Your task to perform on an android device: add a contact in the contacts app Image 0: 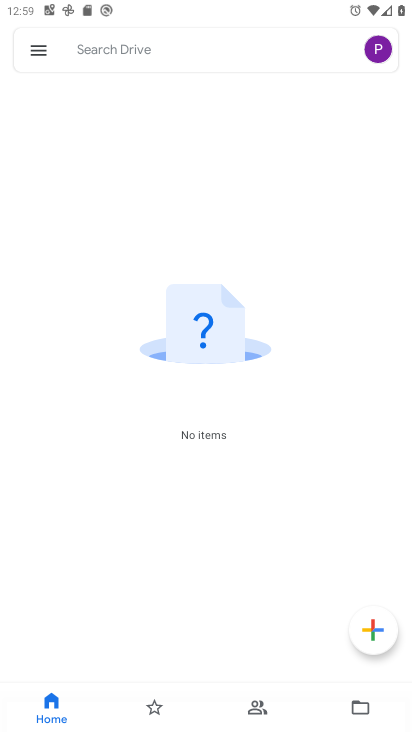
Step 0: drag from (156, 678) to (272, 133)
Your task to perform on an android device: add a contact in the contacts app Image 1: 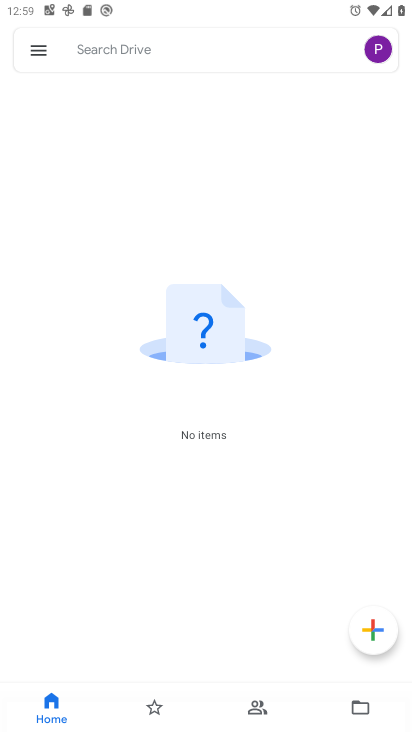
Step 1: press home button
Your task to perform on an android device: add a contact in the contacts app Image 2: 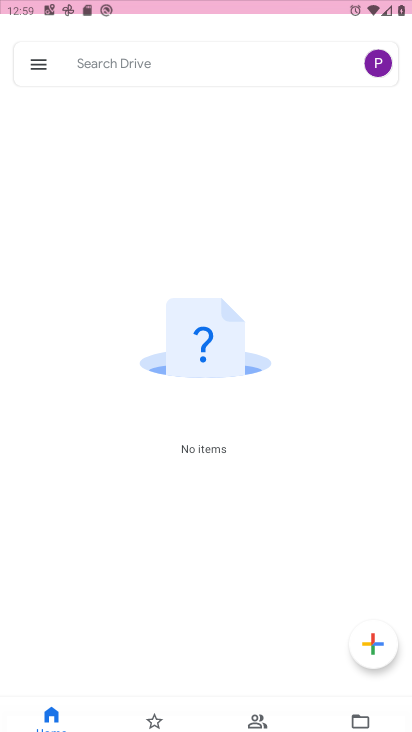
Step 2: drag from (199, 350) to (247, 169)
Your task to perform on an android device: add a contact in the contacts app Image 3: 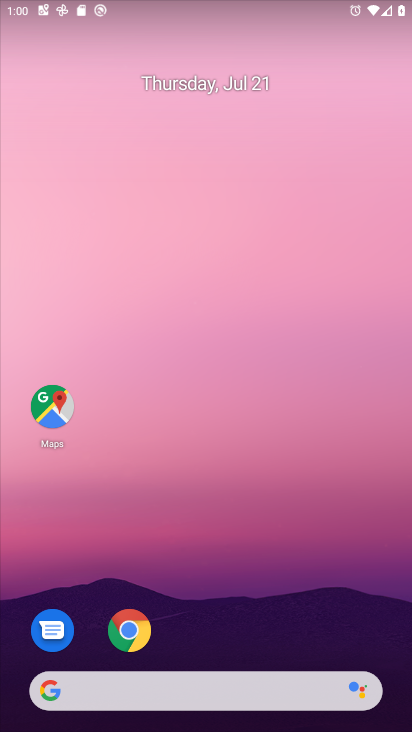
Step 3: drag from (171, 639) to (237, 67)
Your task to perform on an android device: add a contact in the contacts app Image 4: 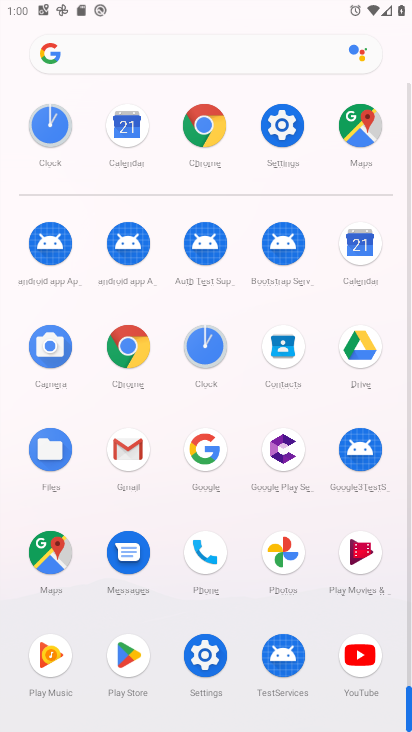
Step 4: click (275, 349)
Your task to perform on an android device: add a contact in the contacts app Image 5: 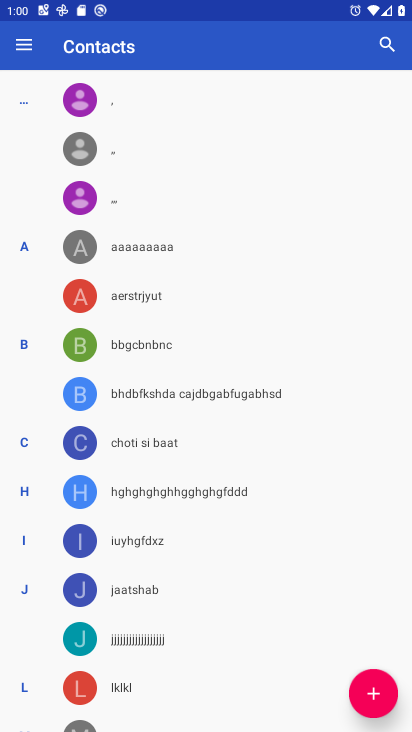
Step 5: click (363, 688)
Your task to perform on an android device: add a contact in the contacts app Image 6: 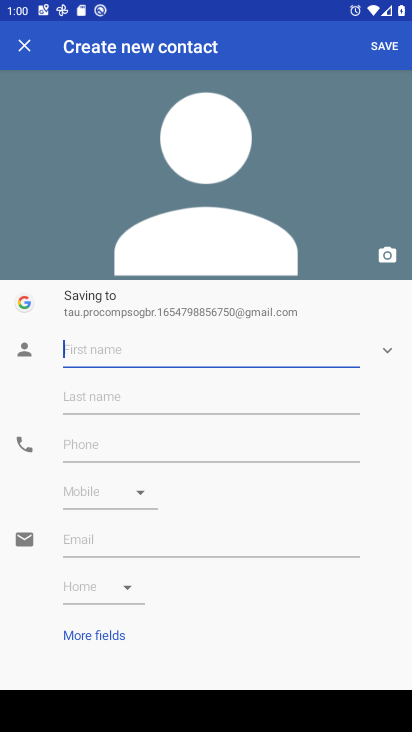
Step 6: type "kijmk"
Your task to perform on an android device: add a contact in the contacts app Image 7: 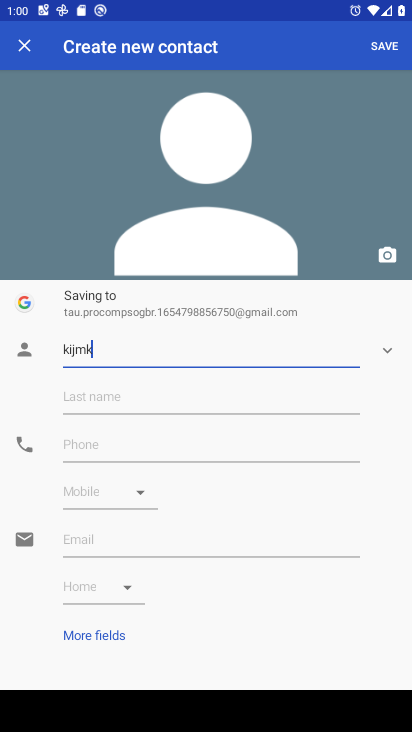
Step 7: click (71, 446)
Your task to perform on an android device: add a contact in the contacts app Image 8: 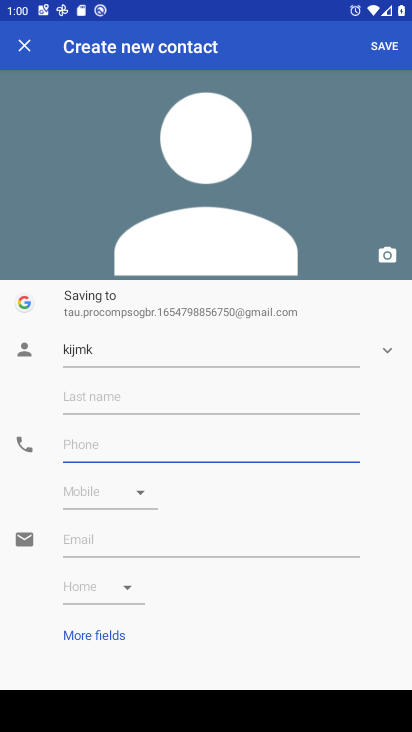
Step 8: type "8876578"
Your task to perform on an android device: add a contact in the contacts app Image 9: 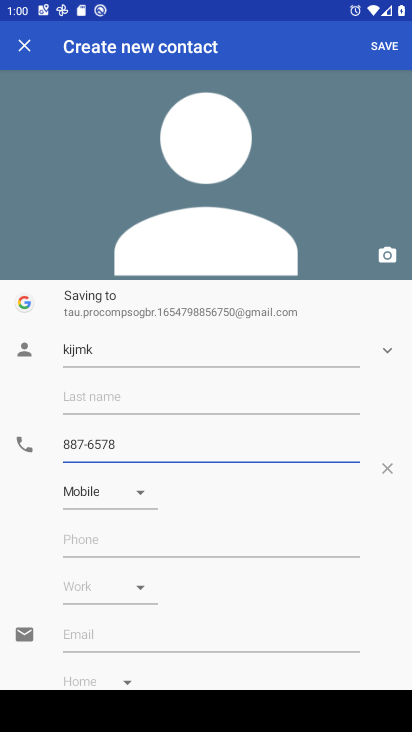
Step 9: click (381, 44)
Your task to perform on an android device: add a contact in the contacts app Image 10: 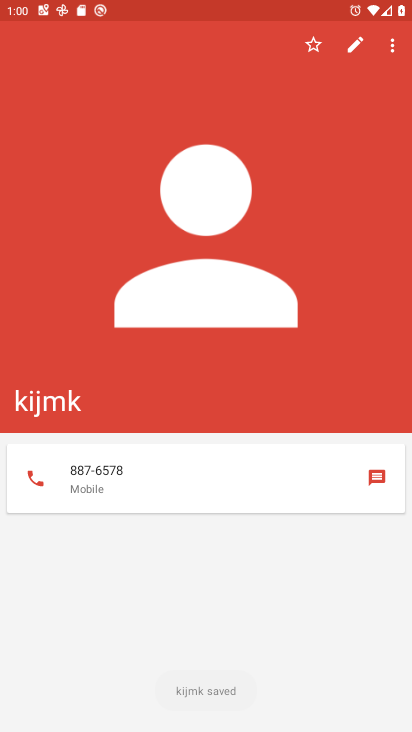
Step 10: task complete